Your task to perform on an android device: Go to ESPN.com Image 0: 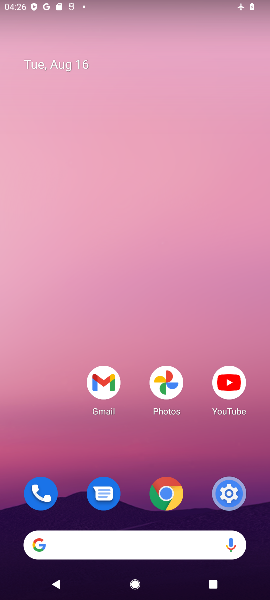
Step 0: press home button
Your task to perform on an android device: Go to ESPN.com Image 1: 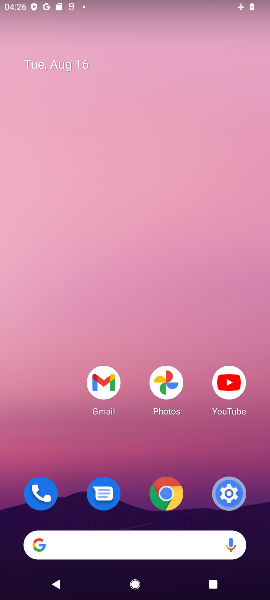
Step 1: drag from (68, 505) to (104, 169)
Your task to perform on an android device: Go to ESPN.com Image 2: 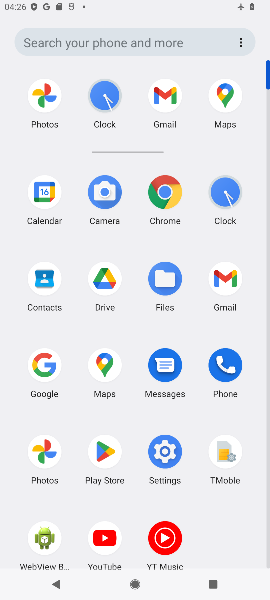
Step 2: click (164, 189)
Your task to perform on an android device: Go to ESPN.com Image 3: 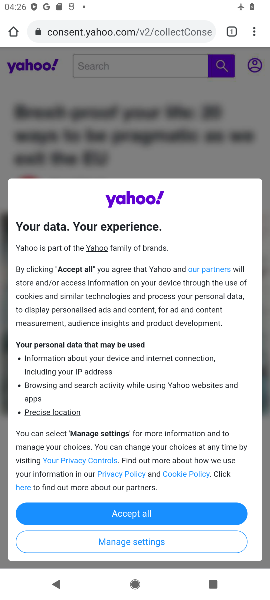
Step 3: click (151, 35)
Your task to perform on an android device: Go to ESPN.com Image 4: 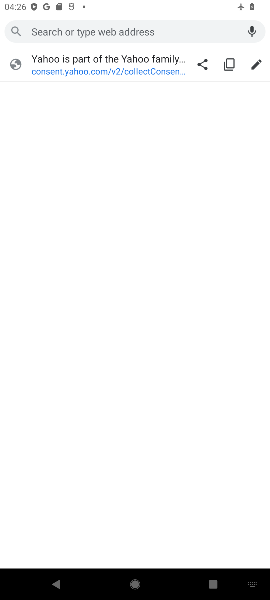
Step 4: type "espn.com"
Your task to perform on an android device: Go to ESPN.com Image 5: 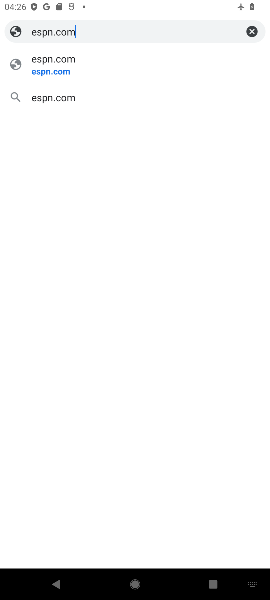
Step 5: click (62, 66)
Your task to perform on an android device: Go to ESPN.com Image 6: 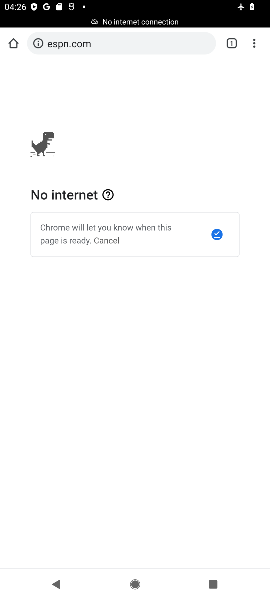
Step 6: task complete